Your task to perform on an android device: turn on improve location accuracy Image 0: 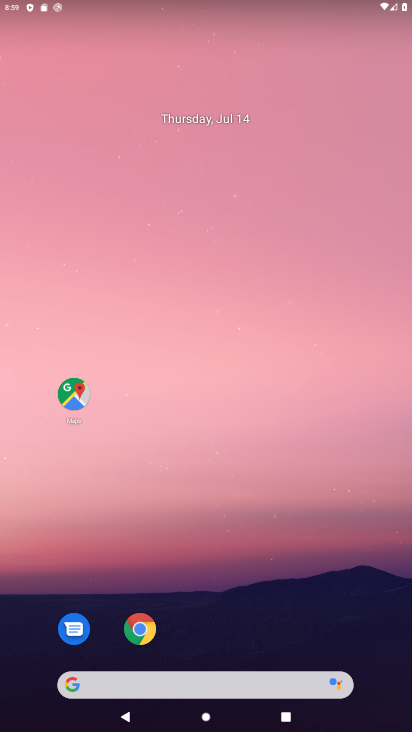
Step 0: drag from (285, 572) to (280, 304)
Your task to perform on an android device: turn on improve location accuracy Image 1: 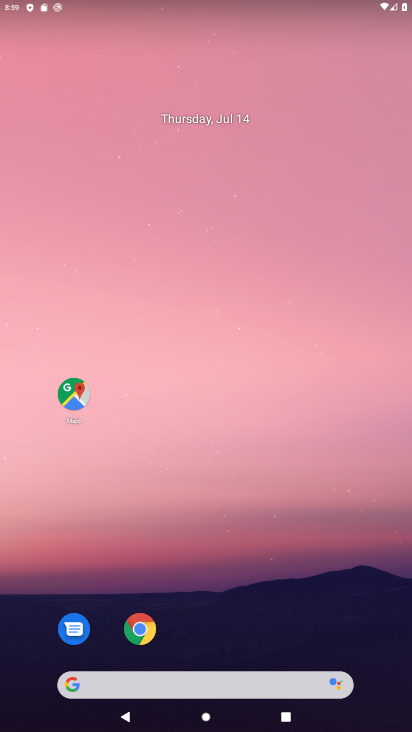
Step 1: drag from (209, 617) to (244, 258)
Your task to perform on an android device: turn on improve location accuracy Image 2: 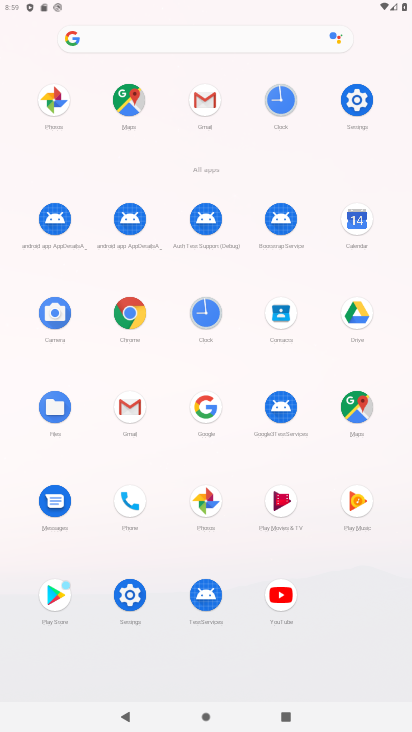
Step 2: click (357, 85)
Your task to perform on an android device: turn on improve location accuracy Image 3: 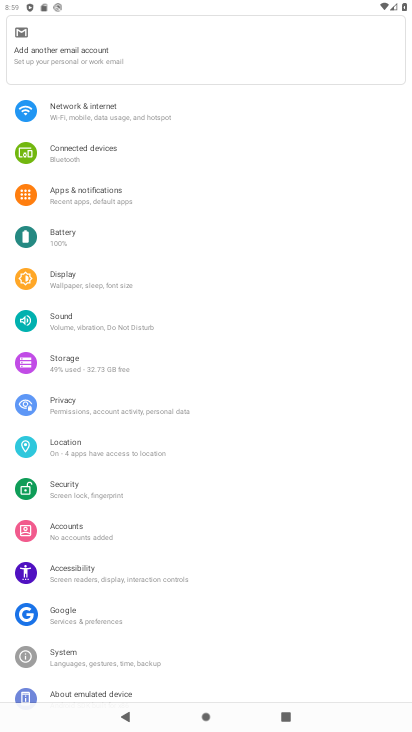
Step 3: drag from (138, 644) to (178, 305)
Your task to perform on an android device: turn on improve location accuracy Image 4: 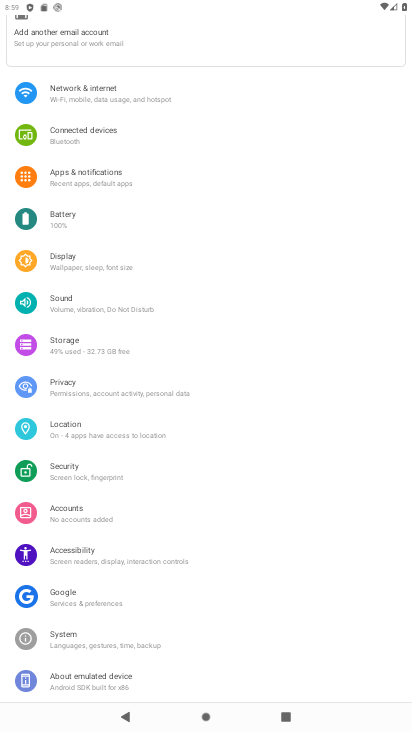
Step 4: click (97, 433)
Your task to perform on an android device: turn on improve location accuracy Image 5: 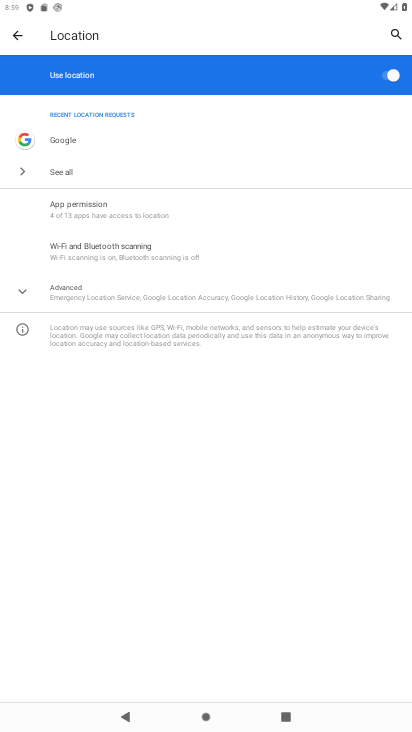
Step 5: click (113, 285)
Your task to perform on an android device: turn on improve location accuracy Image 6: 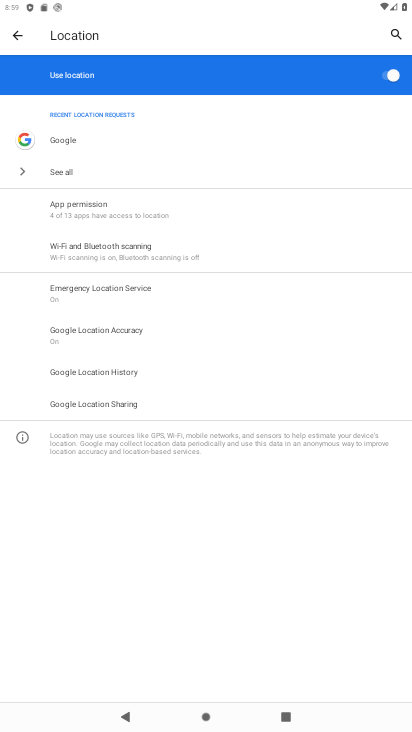
Step 6: click (131, 329)
Your task to perform on an android device: turn on improve location accuracy Image 7: 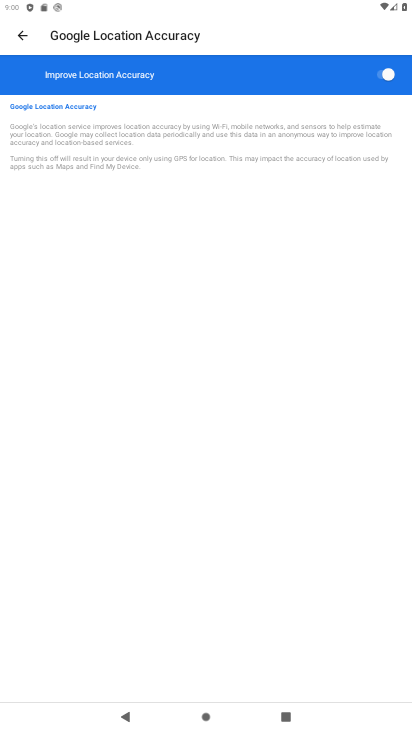
Step 7: task complete